Your task to perform on an android device: install app "Truecaller" Image 0: 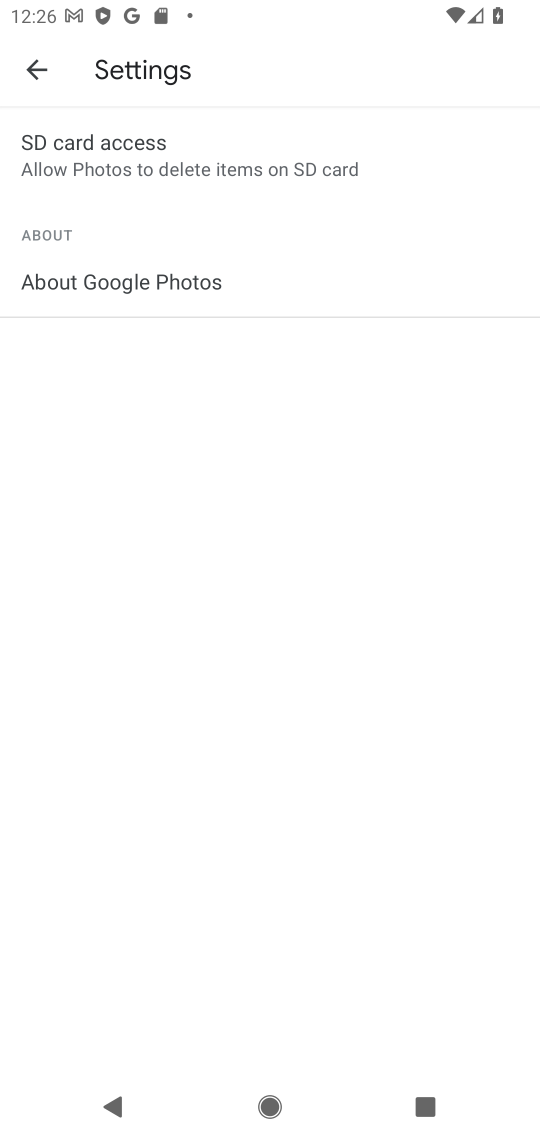
Step 0: press home button
Your task to perform on an android device: install app "Truecaller" Image 1: 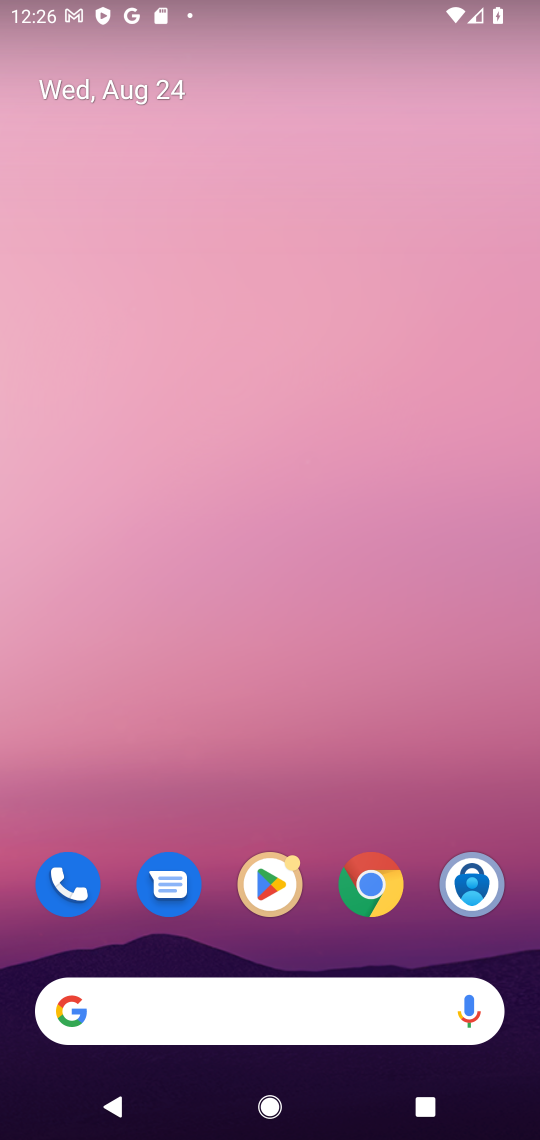
Step 1: drag from (196, 1001) to (241, 185)
Your task to perform on an android device: install app "Truecaller" Image 2: 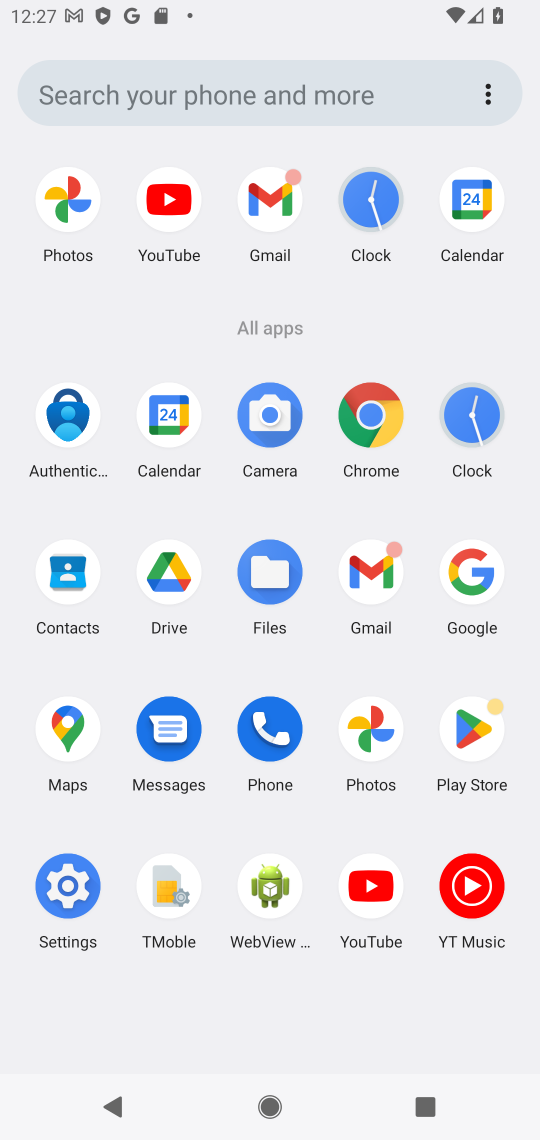
Step 2: click (474, 735)
Your task to perform on an android device: install app "Truecaller" Image 3: 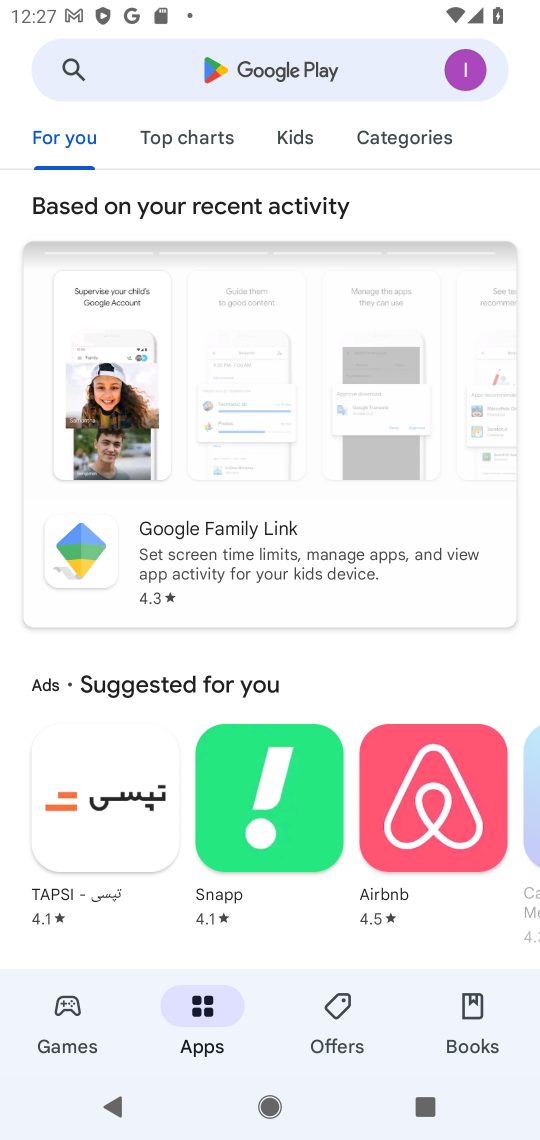
Step 3: click (335, 75)
Your task to perform on an android device: install app "Truecaller" Image 4: 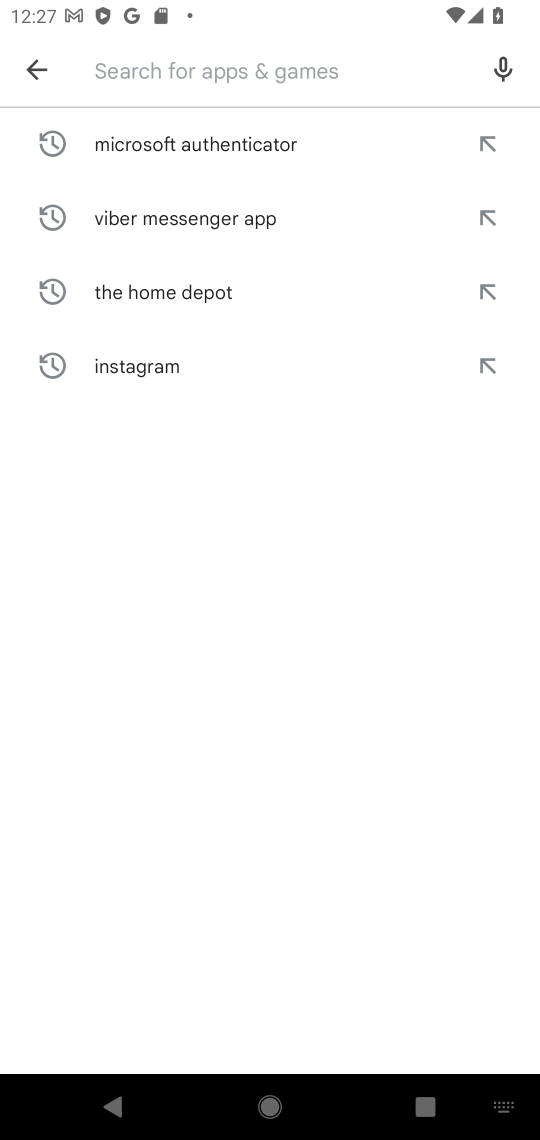
Step 4: type "Truecaller"
Your task to perform on an android device: install app "Truecaller" Image 5: 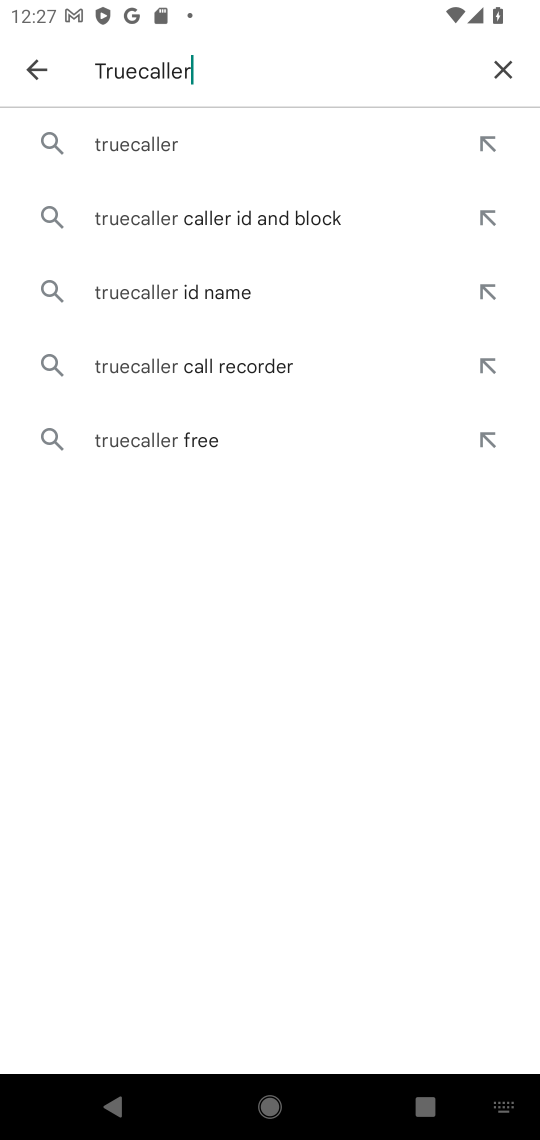
Step 5: click (151, 144)
Your task to perform on an android device: install app "Truecaller" Image 6: 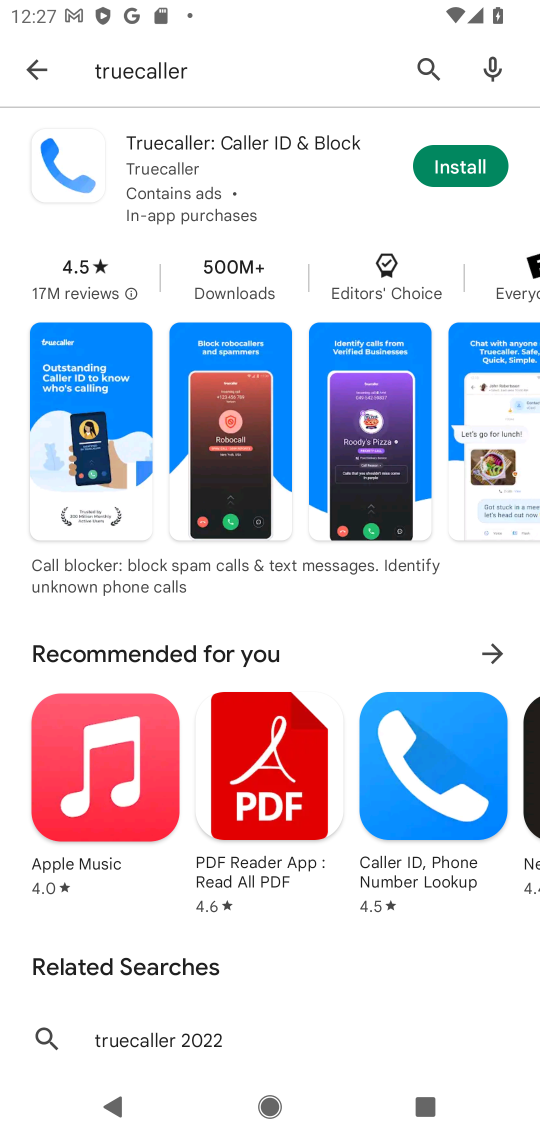
Step 6: click (459, 172)
Your task to perform on an android device: install app "Truecaller" Image 7: 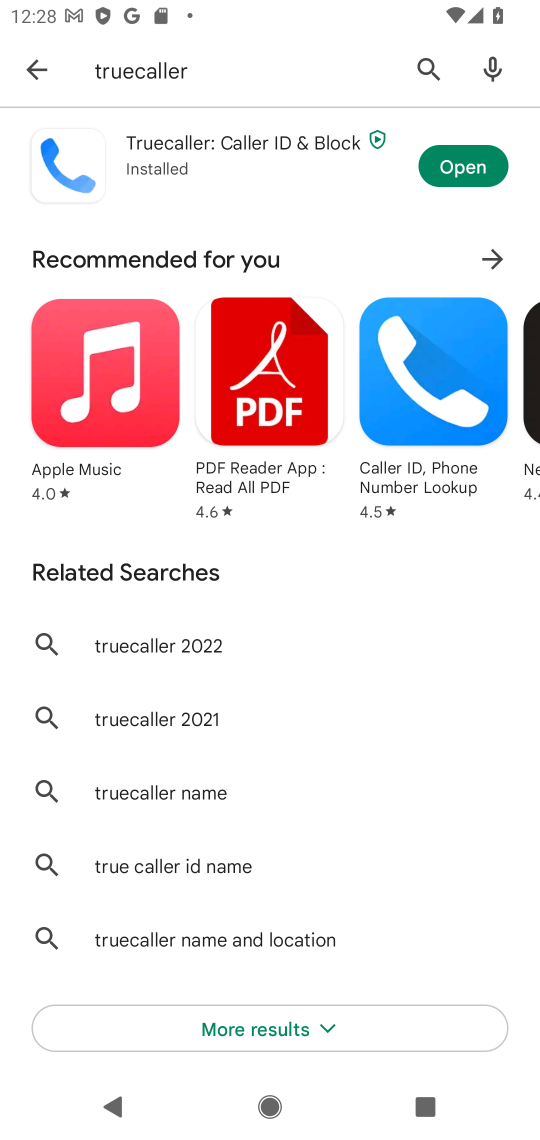
Step 7: task complete